Your task to perform on an android device: change keyboard looks Image 0: 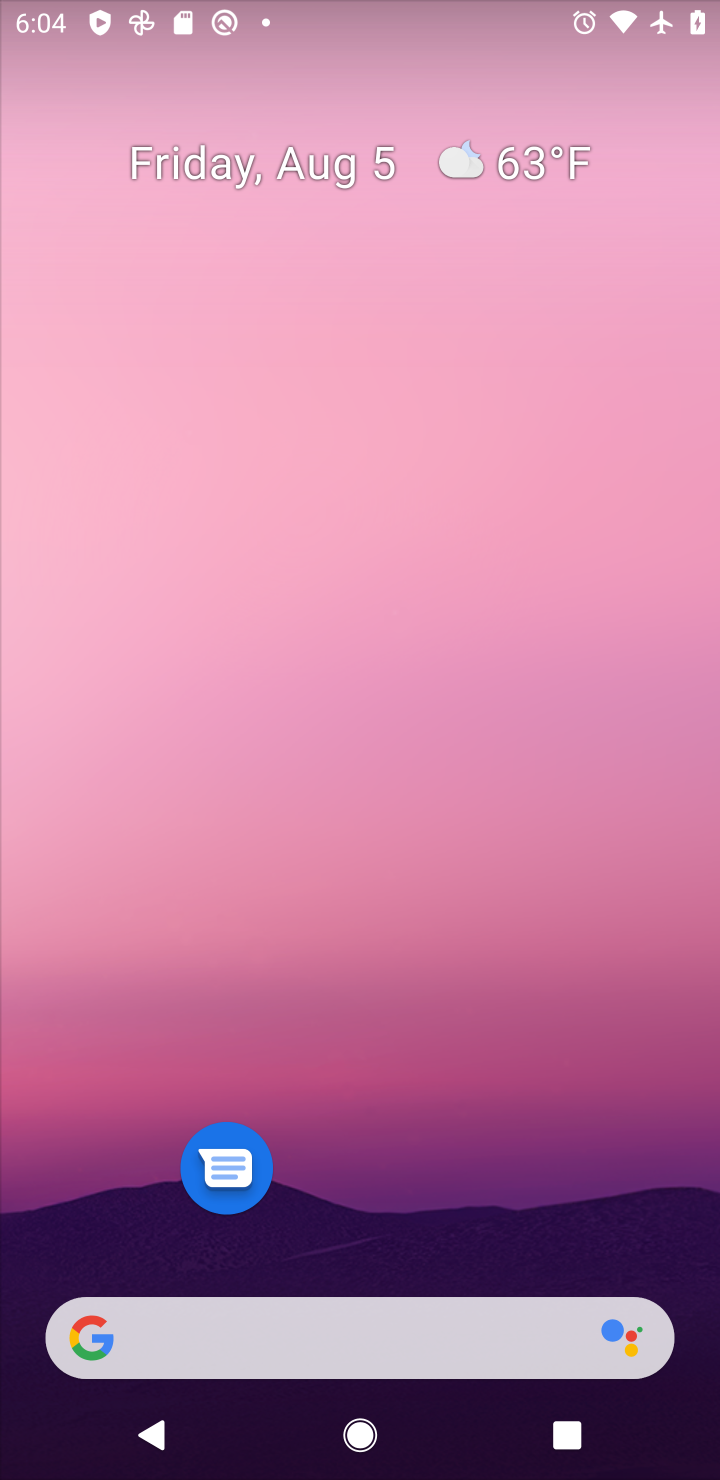
Step 0: press home button
Your task to perform on an android device: change keyboard looks Image 1: 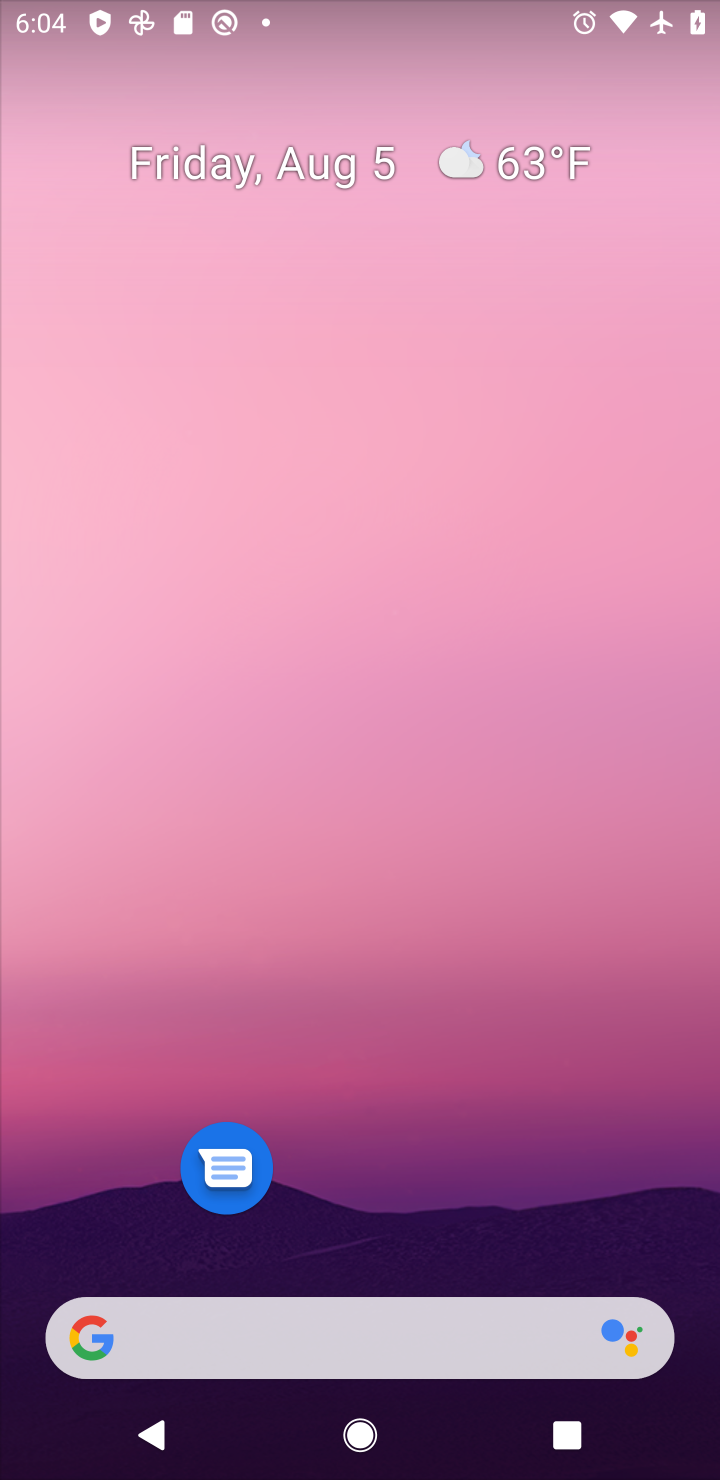
Step 1: drag from (432, 1260) to (507, 269)
Your task to perform on an android device: change keyboard looks Image 2: 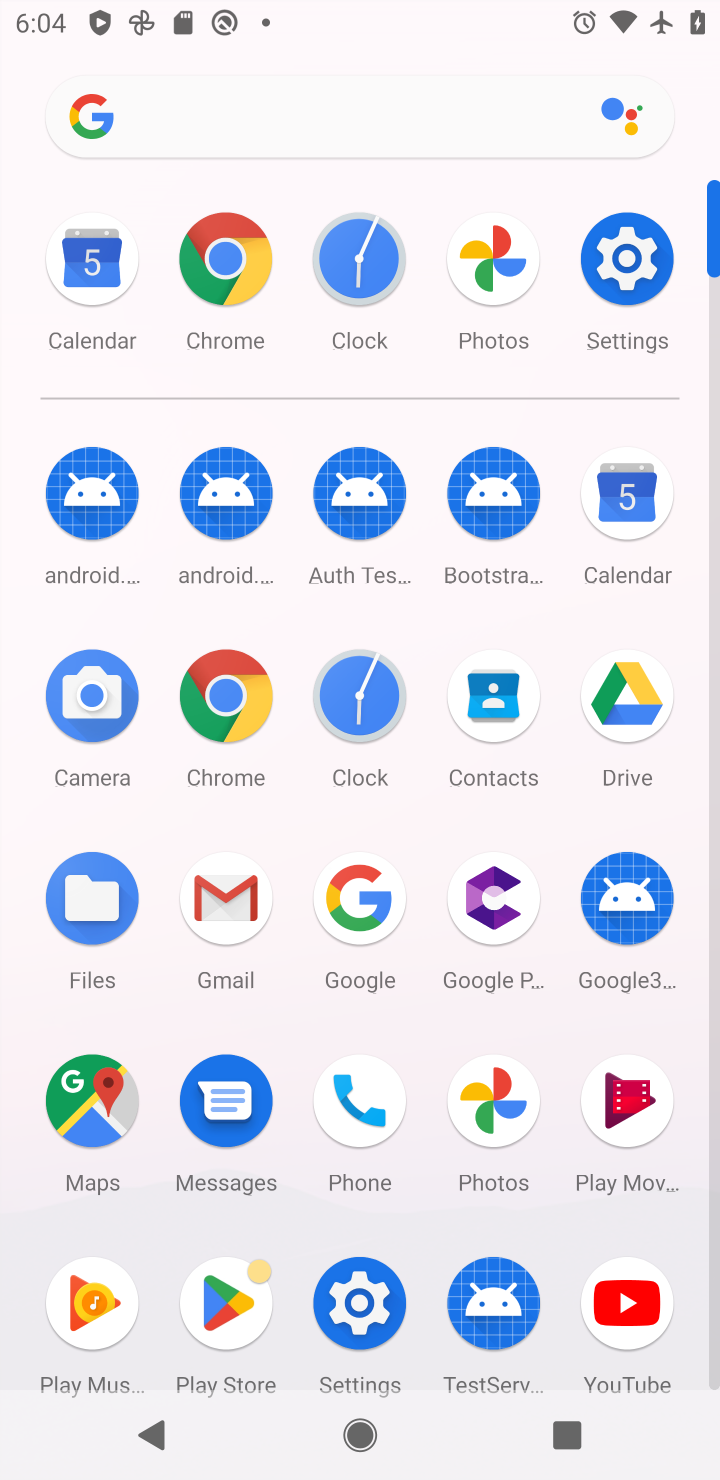
Step 2: click (355, 1279)
Your task to perform on an android device: change keyboard looks Image 3: 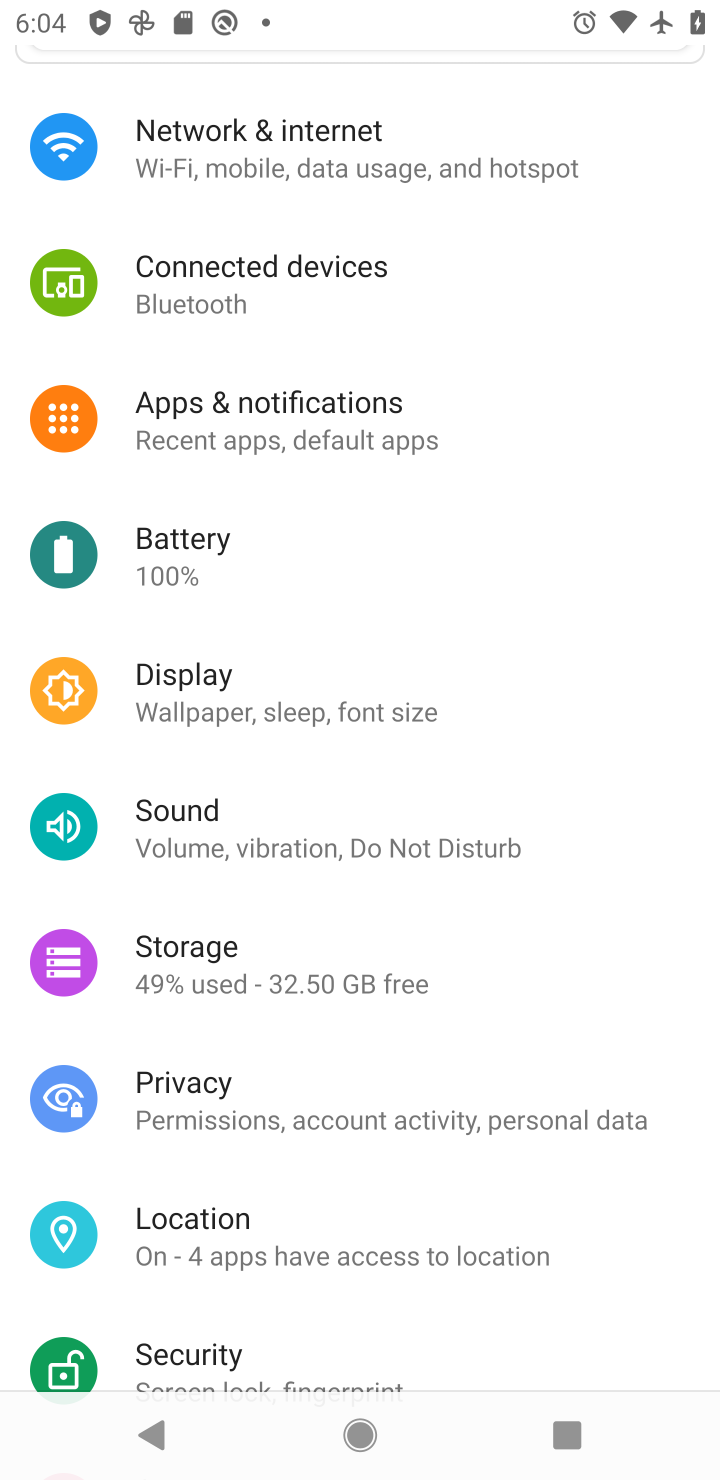
Step 3: drag from (513, 1258) to (402, 137)
Your task to perform on an android device: change keyboard looks Image 4: 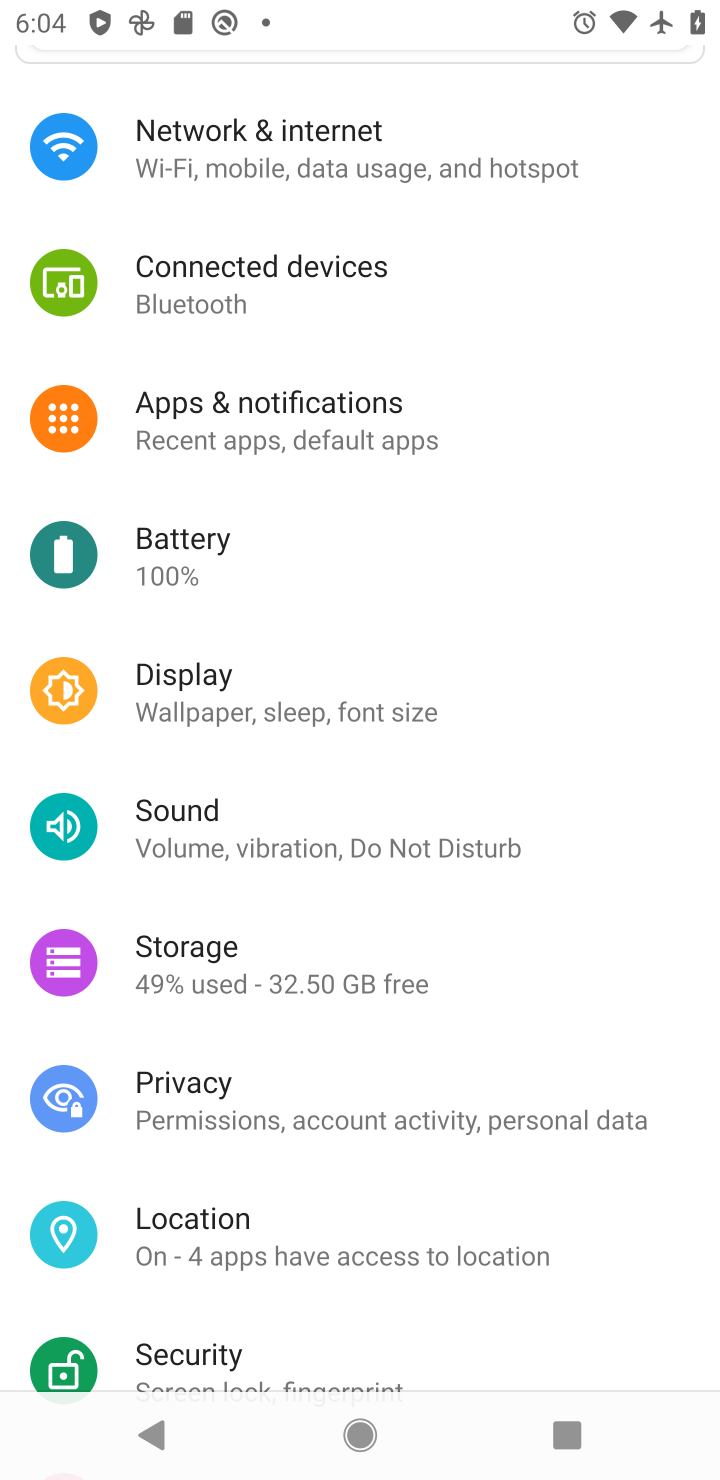
Step 4: drag from (643, 1306) to (546, 238)
Your task to perform on an android device: change keyboard looks Image 5: 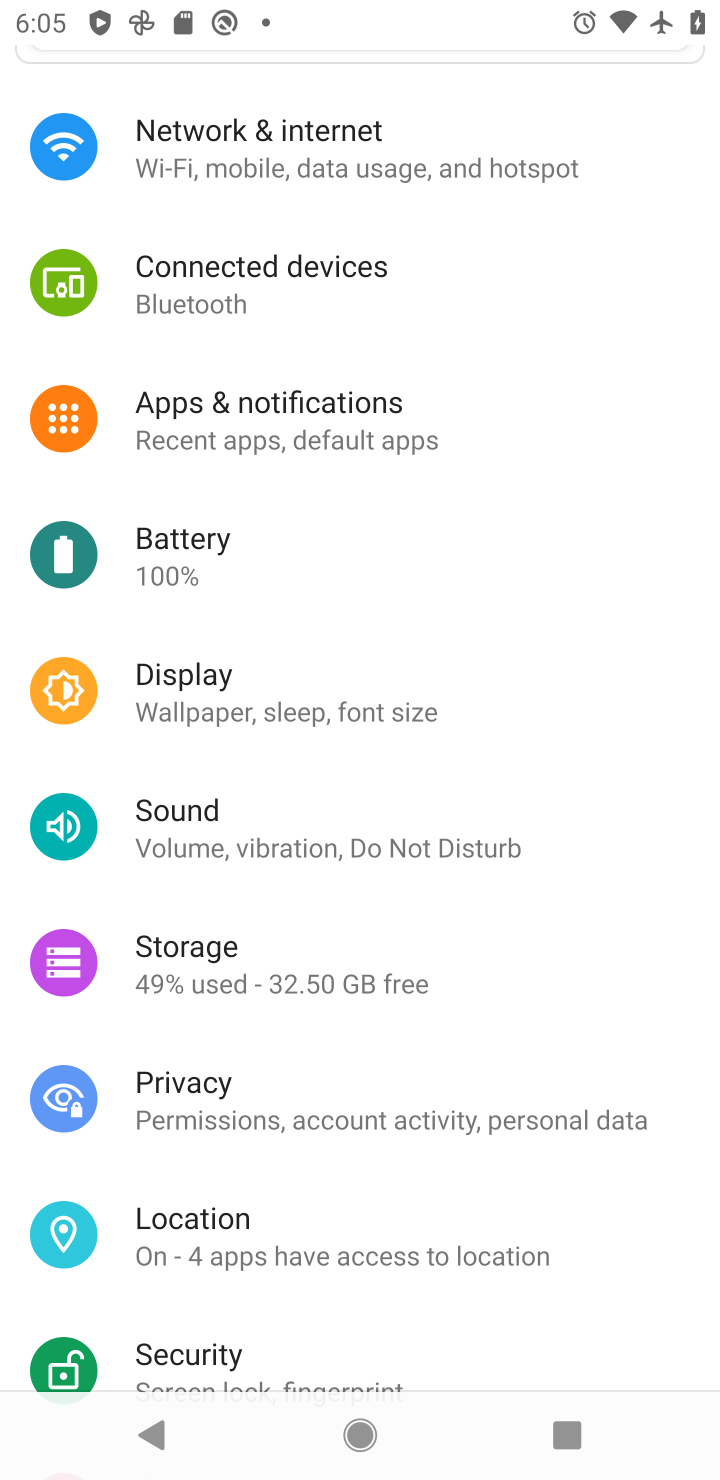
Step 5: drag from (512, 1178) to (591, 164)
Your task to perform on an android device: change keyboard looks Image 6: 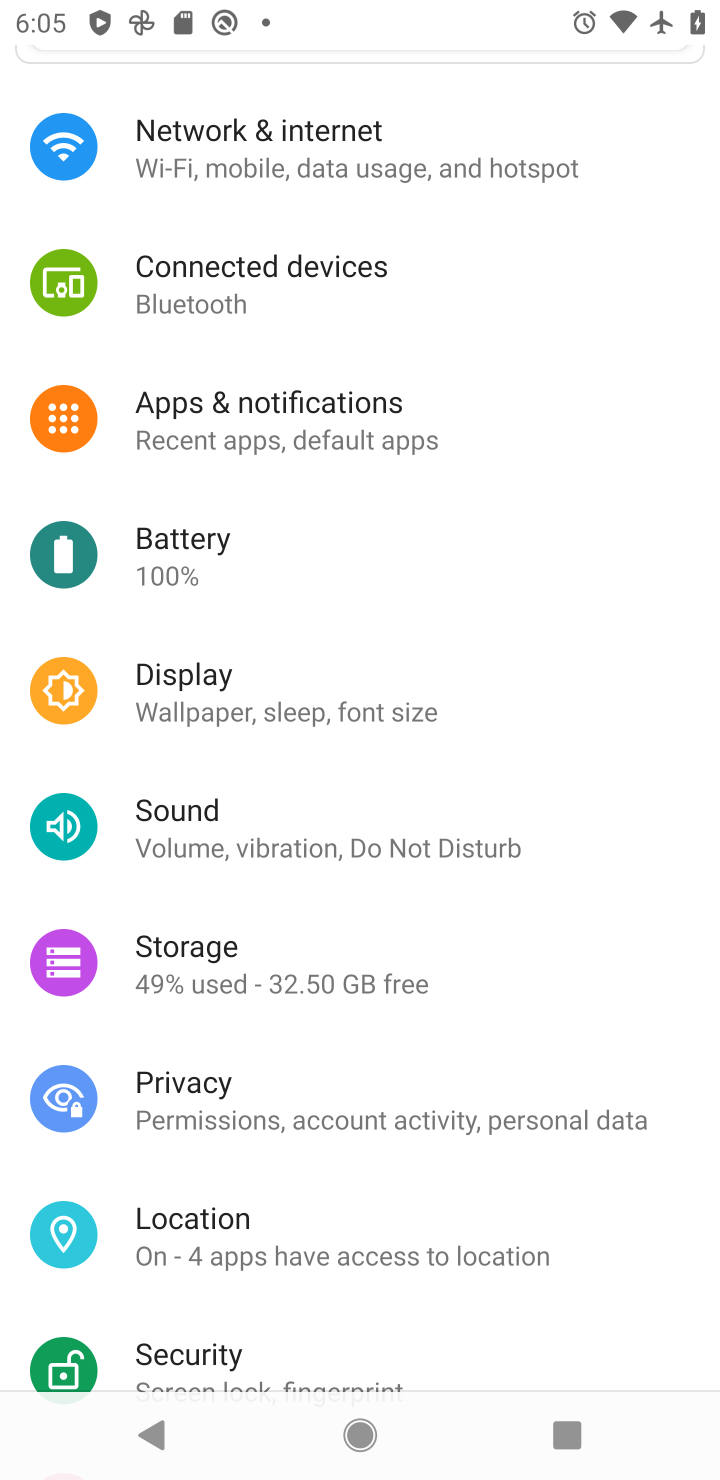
Step 6: drag from (479, 1195) to (708, 145)
Your task to perform on an android device: change keyboard looks Image 7: 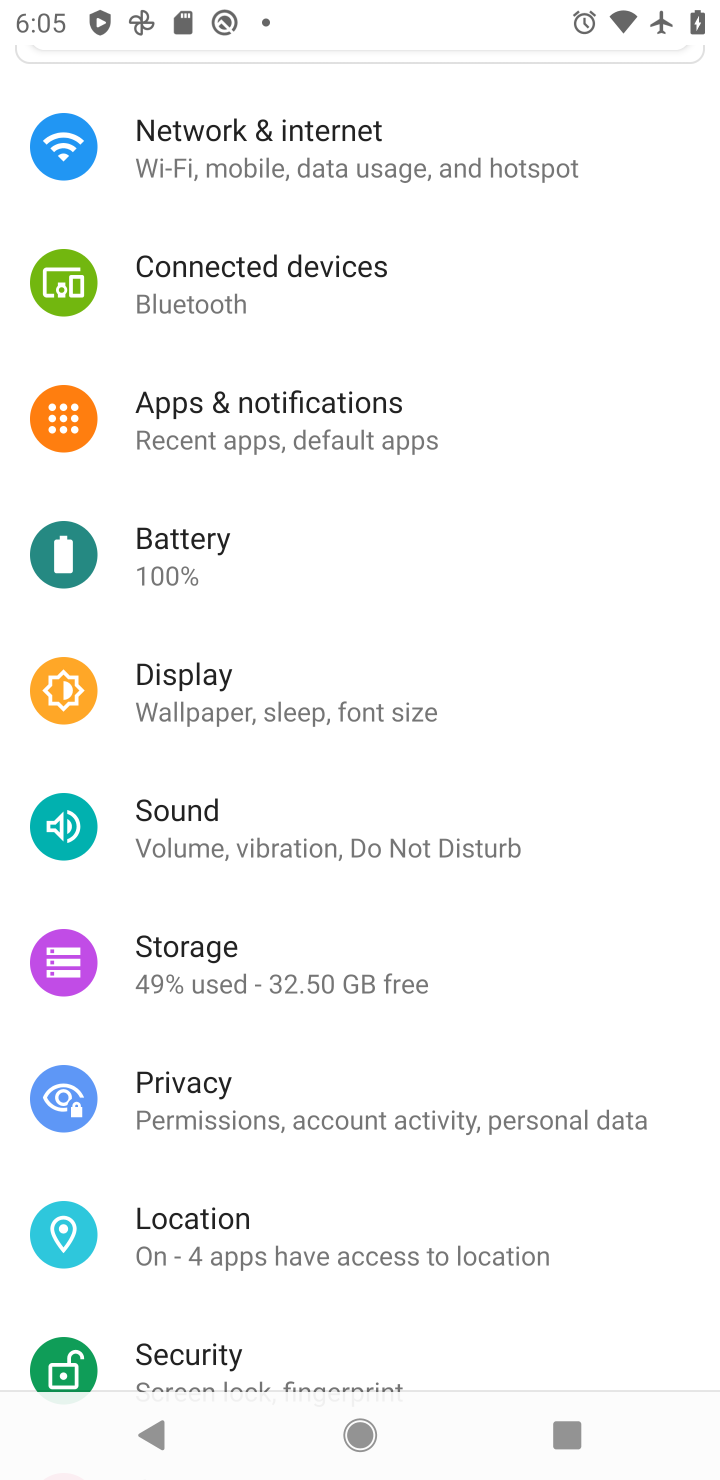
Step 7: drag from (489, 1323) to (715, 1028)
Your task to perform on an android device: change keyboard looks Image 8: 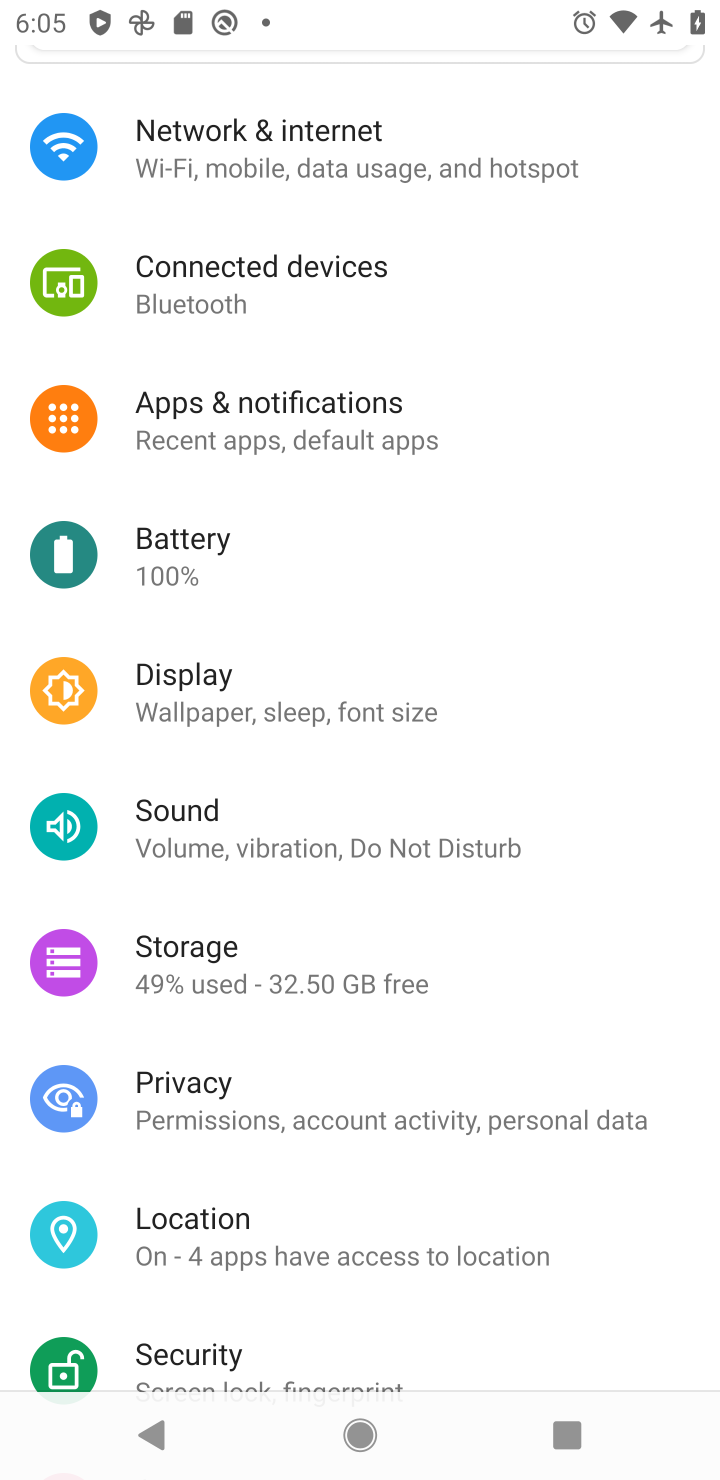
Step 8: drag from (479, 1192) to (676, 51)
Your task to perform on an android device: change keyboard looks Image 9: 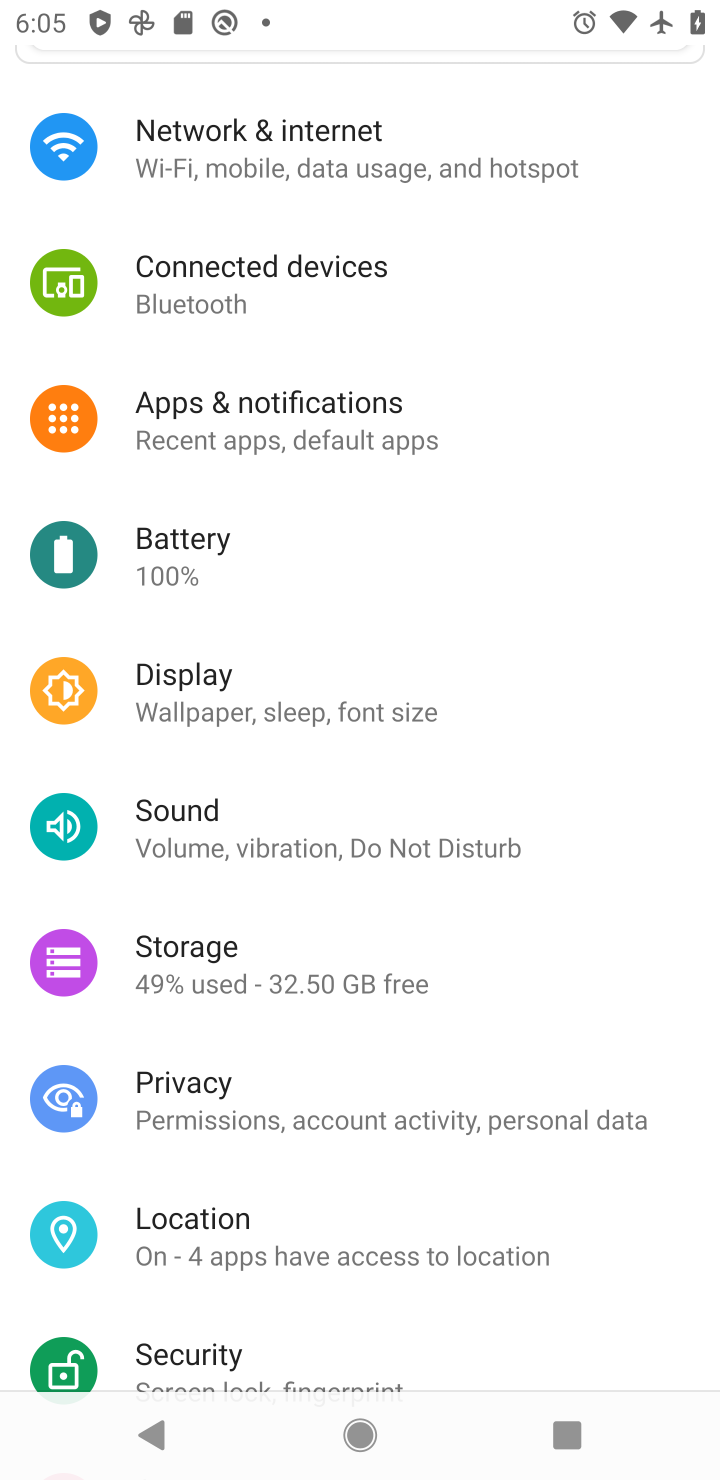
Step 9: drag from (554, 1168) to (659, 11)
Your task to perform on an android device: change keyboard looks Image 10: 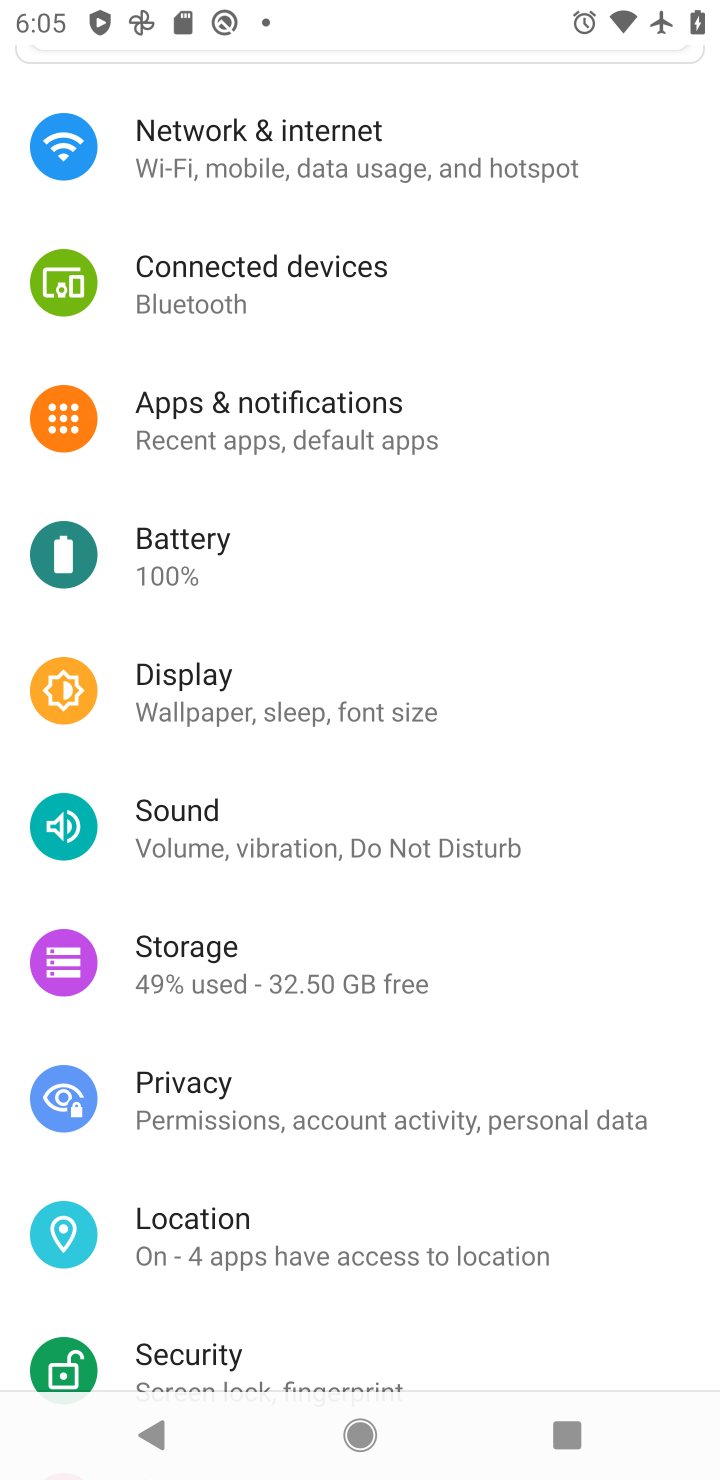
Step 10: drag from (397, 1309) to (337, 74)
Your task to perform on an android device: change keyboard looks Image 11: 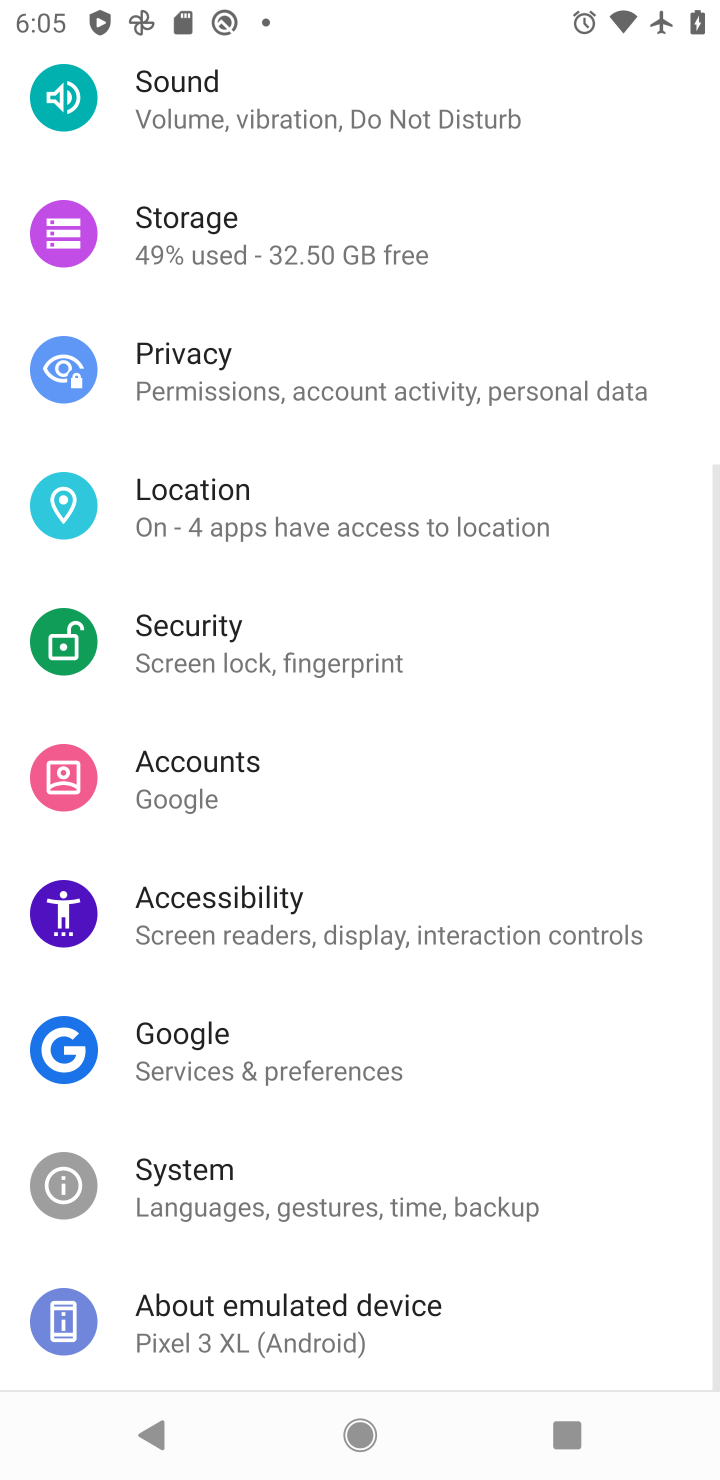
Step 11: drag from (492, 1304) to (488, 11)
Your task to perform on an android device: change keyboard looks Image 12: 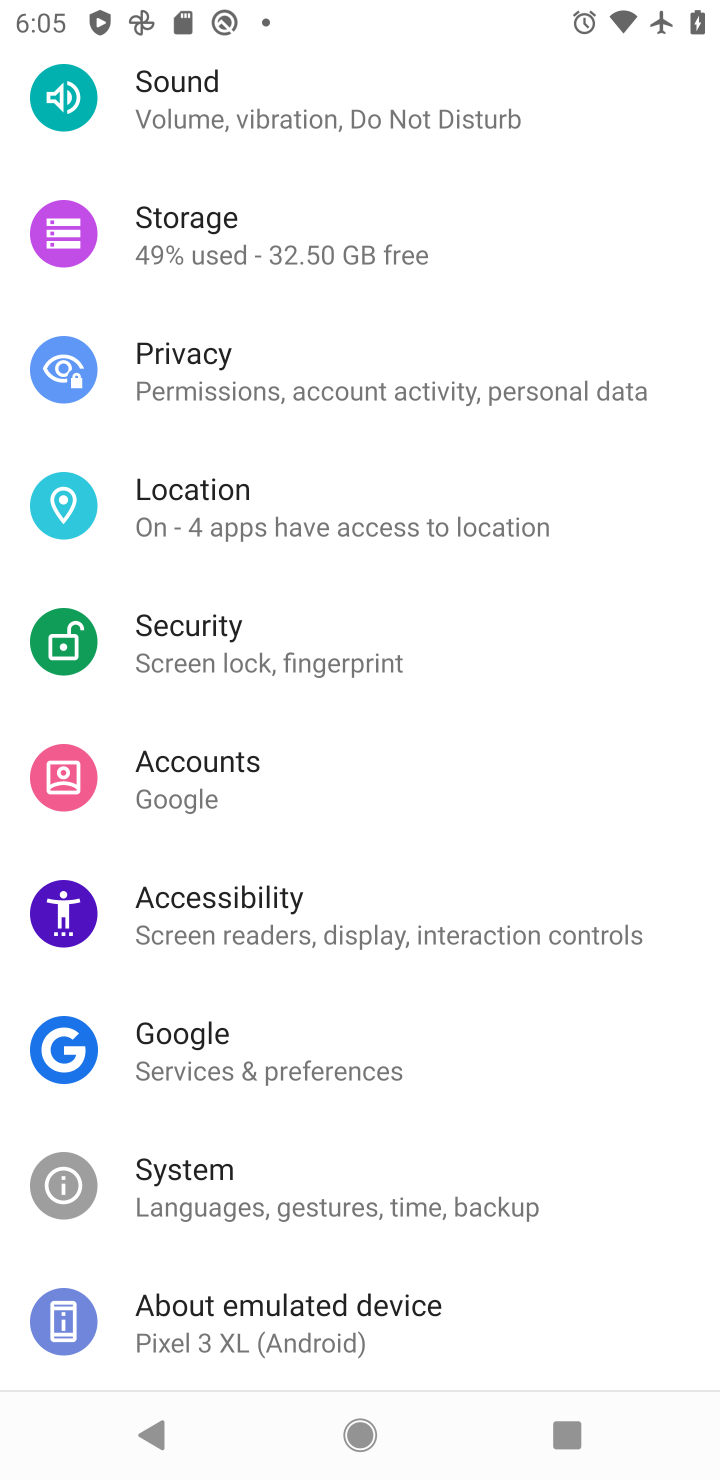
Step 12: drag from (566, 1307) to (574, 29)
Your task to perform on an android device: change keyboard looks Image 13: 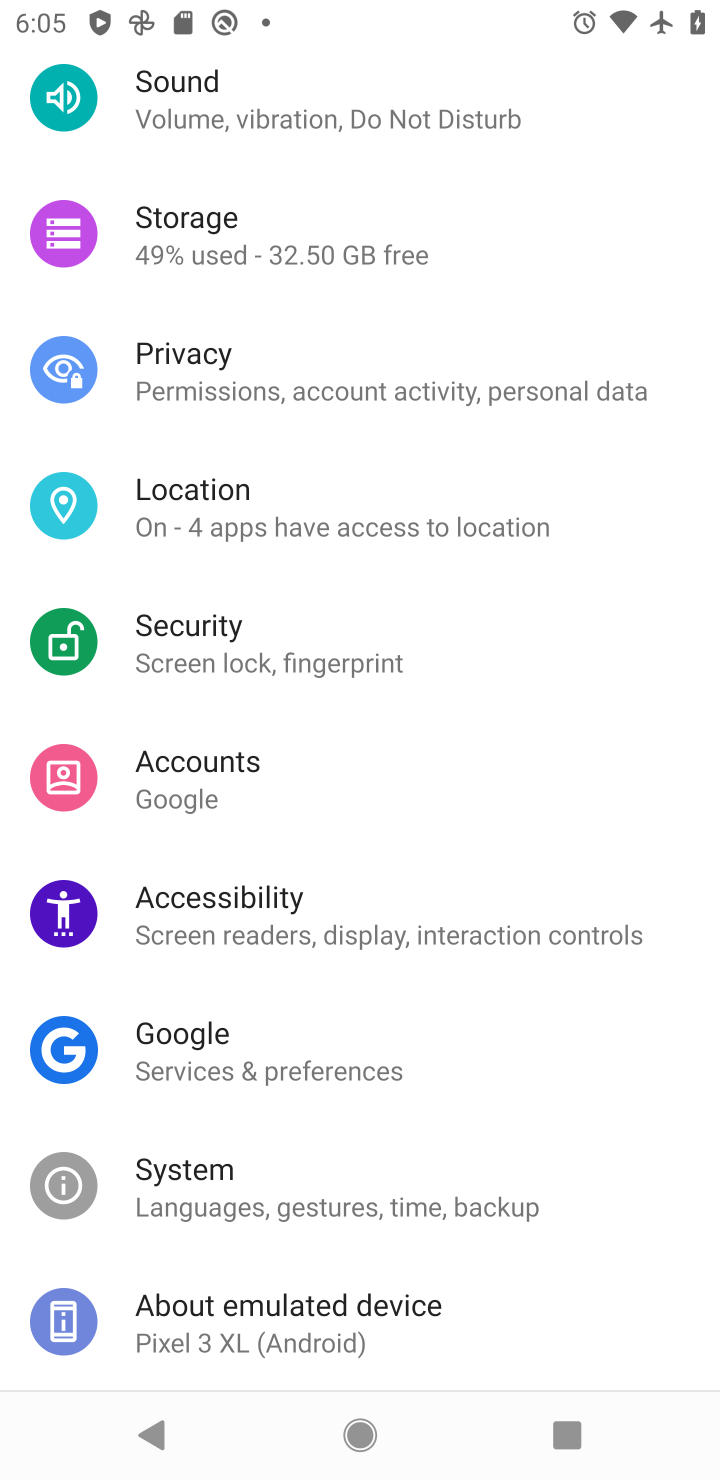
Step 13: click (214, 1183)
Your task to perform on an android device: change keyboard looks Image 14: 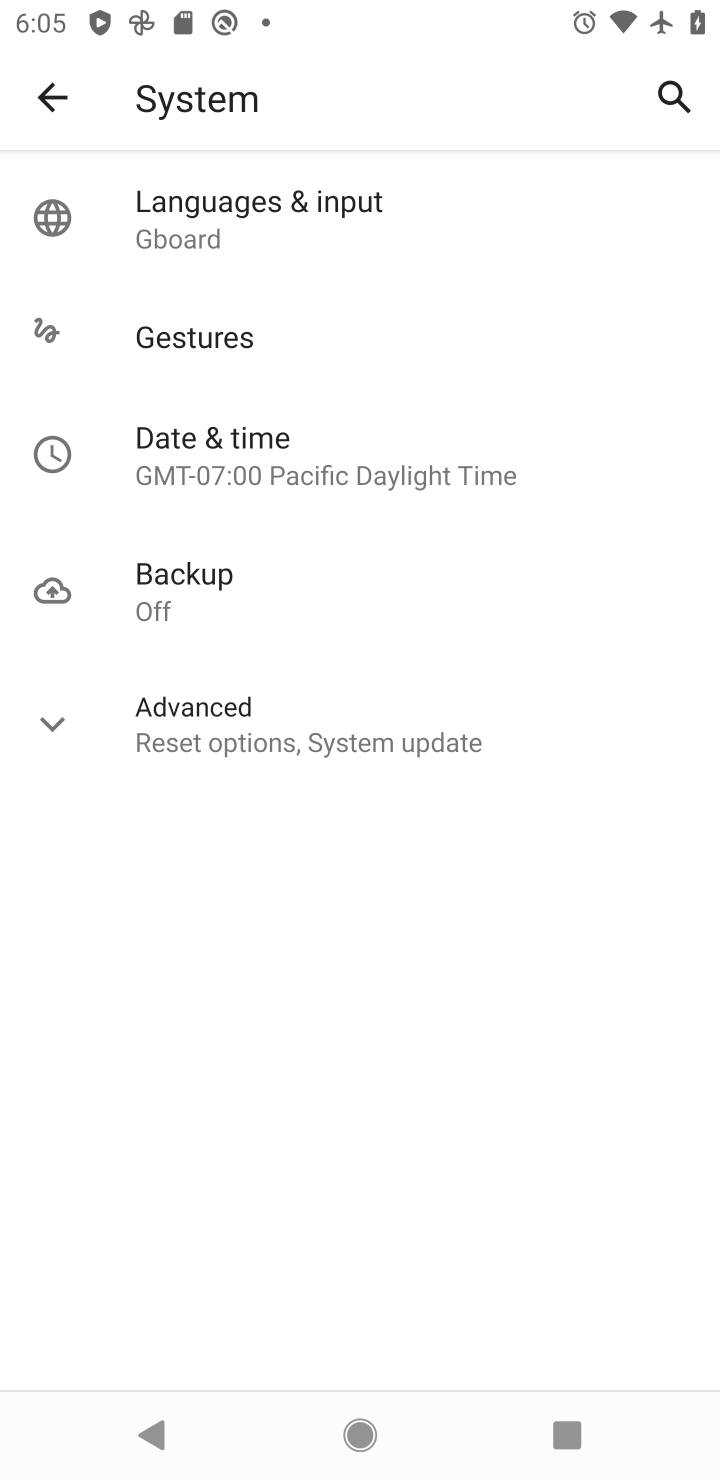
Step 14: click (194, 221)
Your task to perform on an android device: change keyboard looks Image 15: 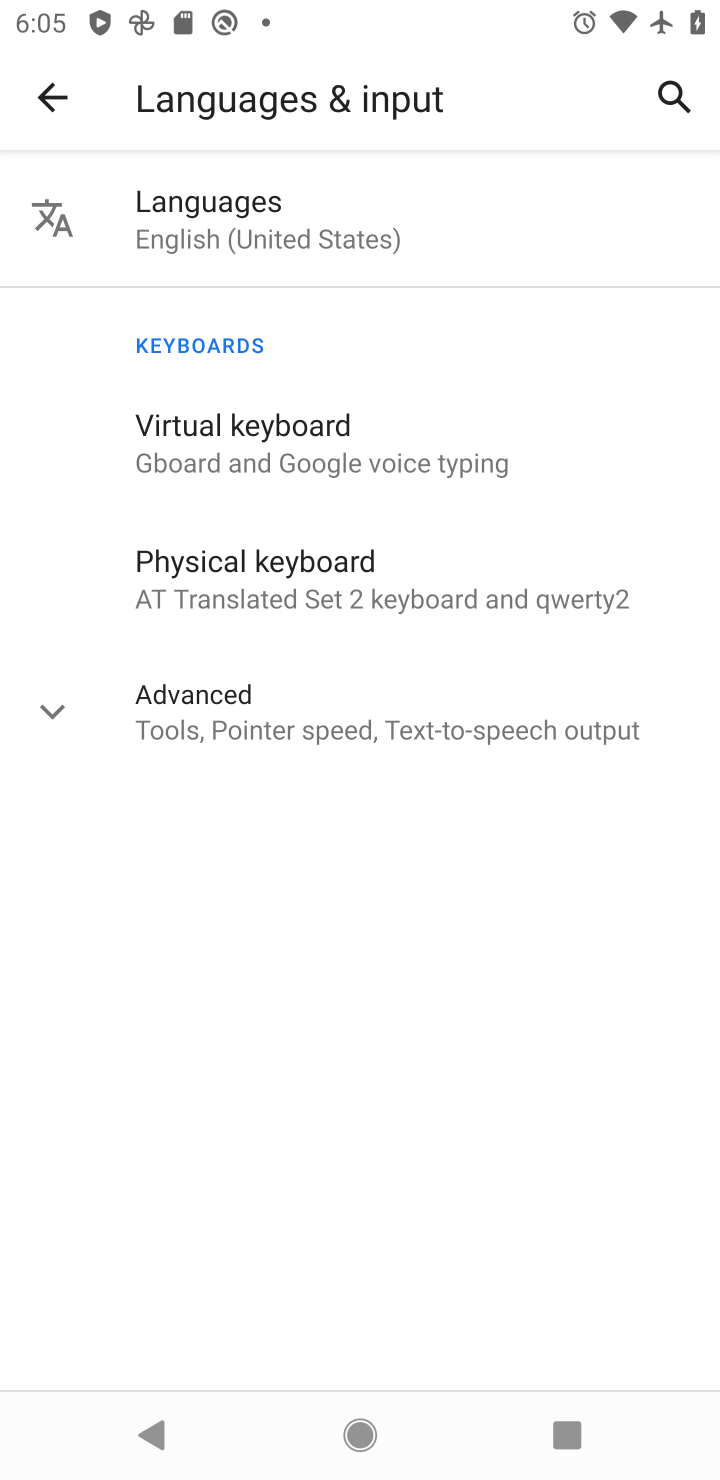
Step 15: click (235, 443)
Your task to perform on an android device: change keyboard looks Image 16: 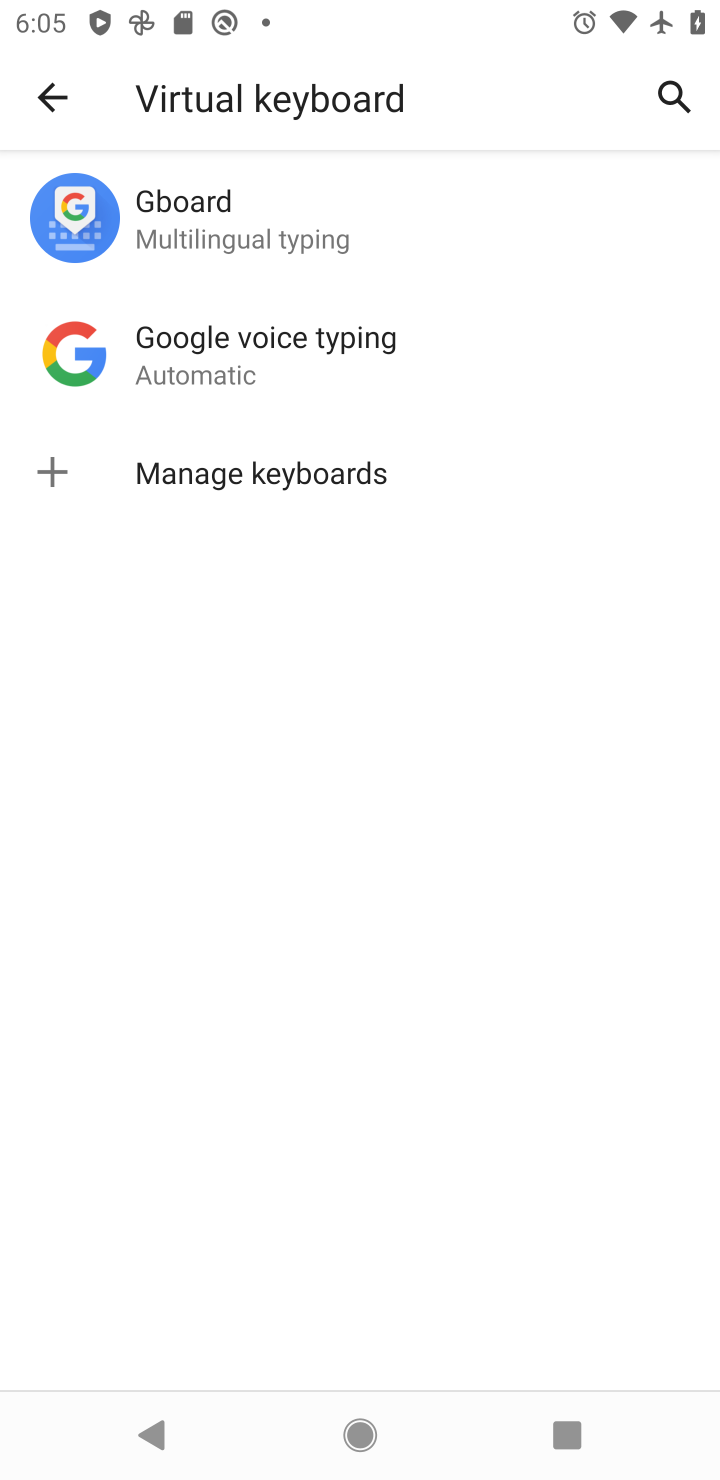
Step 16: click (192, 212)
Your task to perform on an android device: change keyboard looks Image 17: 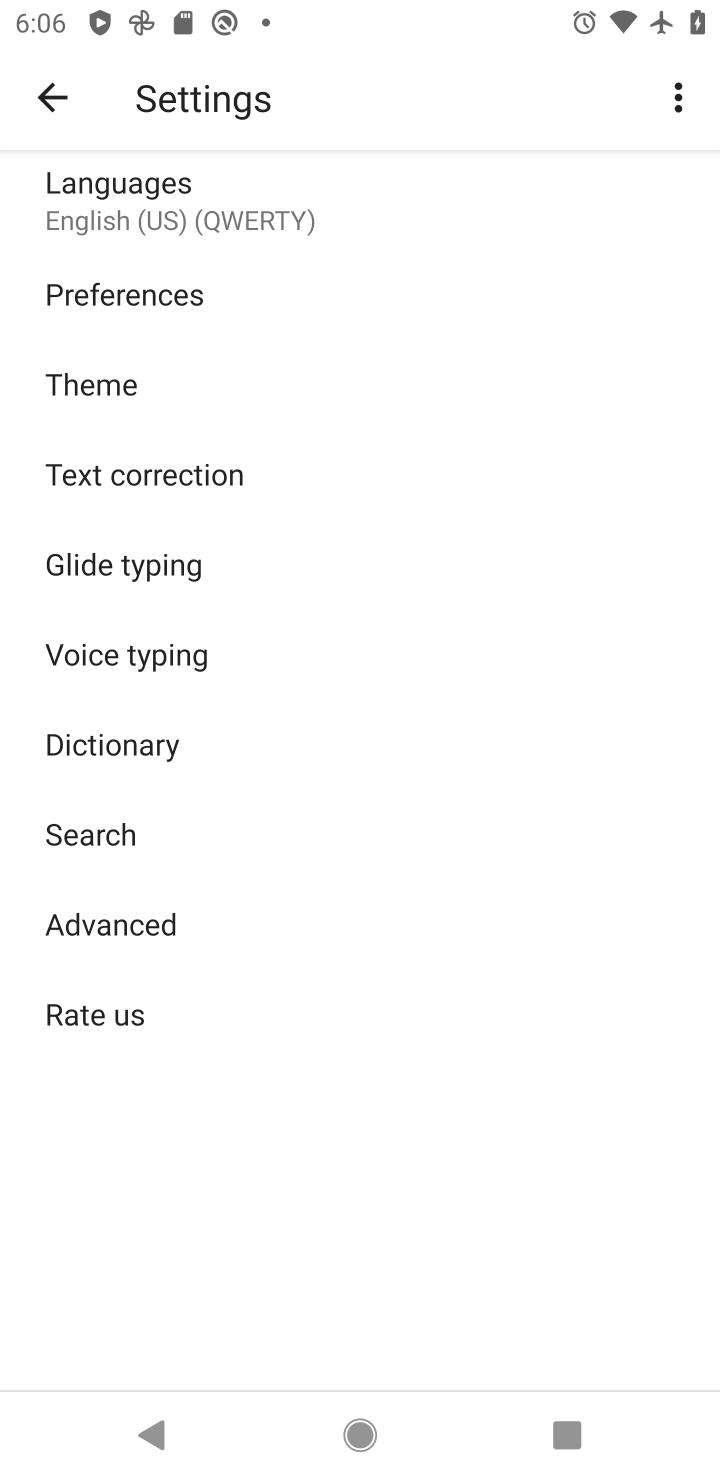
Step 17: click (92, 389)
Your task to perform on an android device: change keyboard looks Image 18: 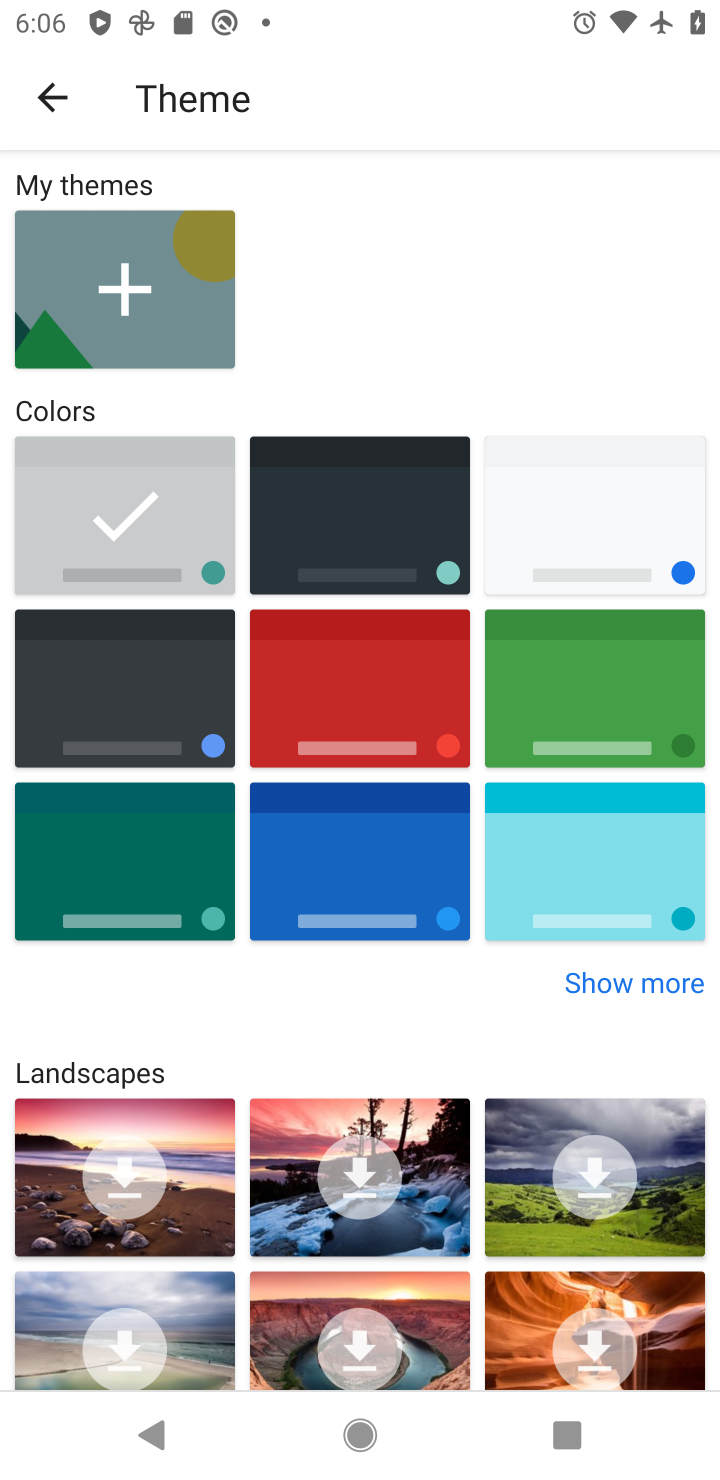
Step 18: click (354, 714)
Your task to perform on an android device: change keyboard looks Image 19: 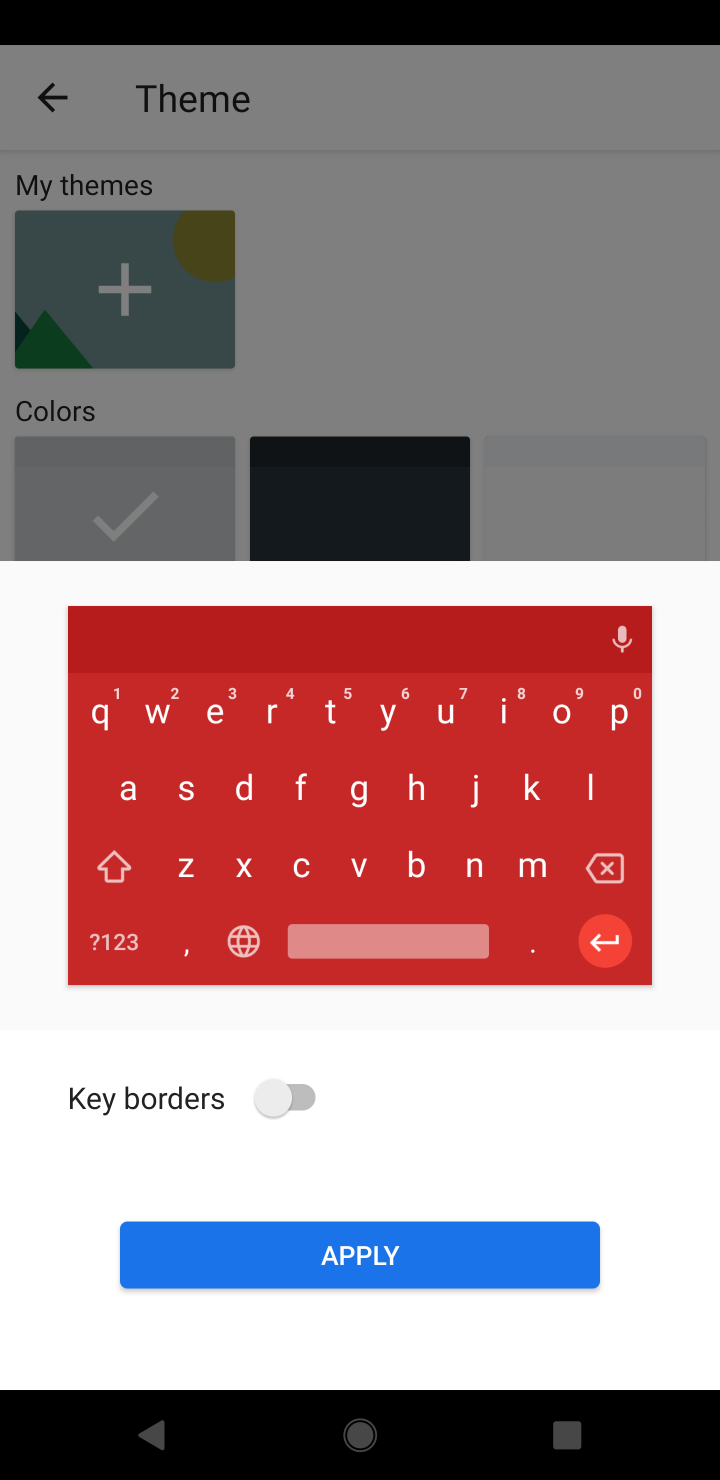
Step 19: click (247, 1254)
Your task to perform on an android device: change keyboard looks Image 20: 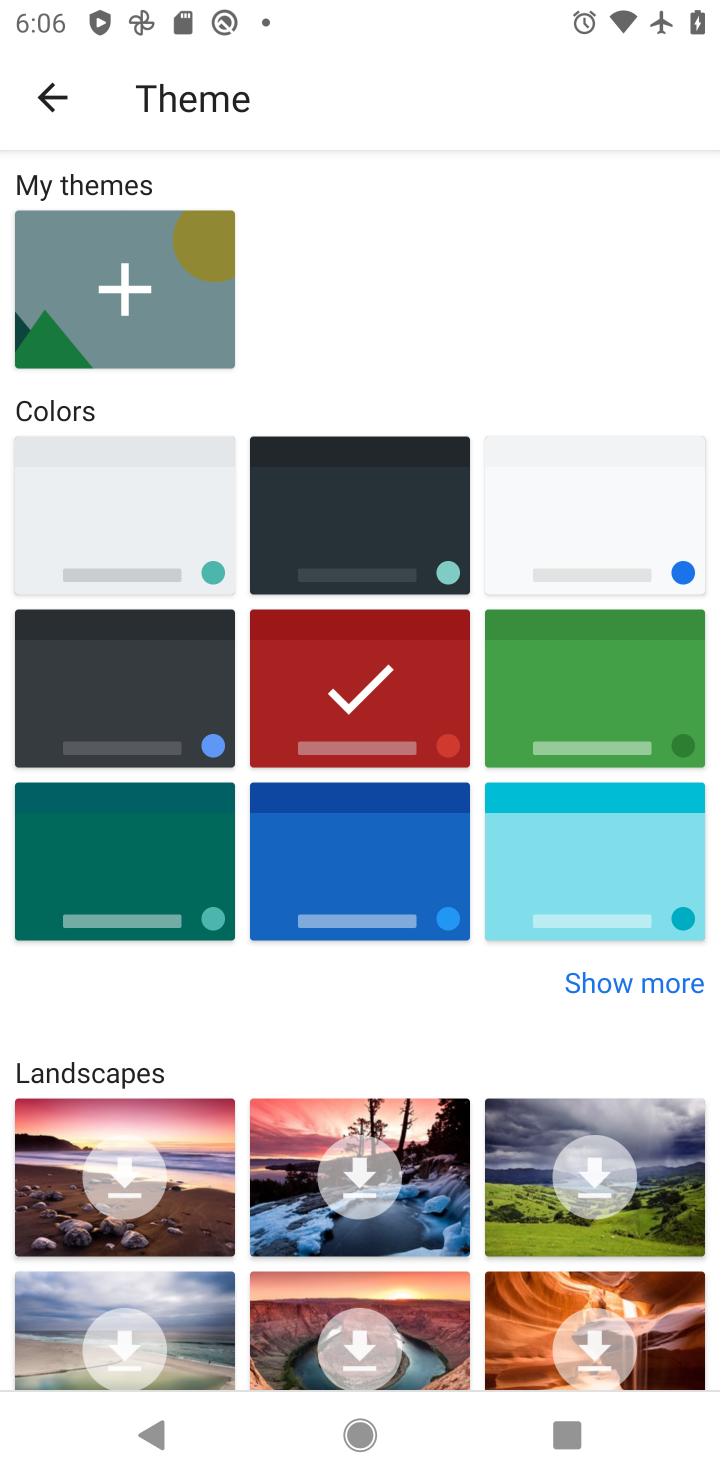
Step 20: task complete